Your task to perform on an android device: find snoozed emails in the gmail app Image 0: 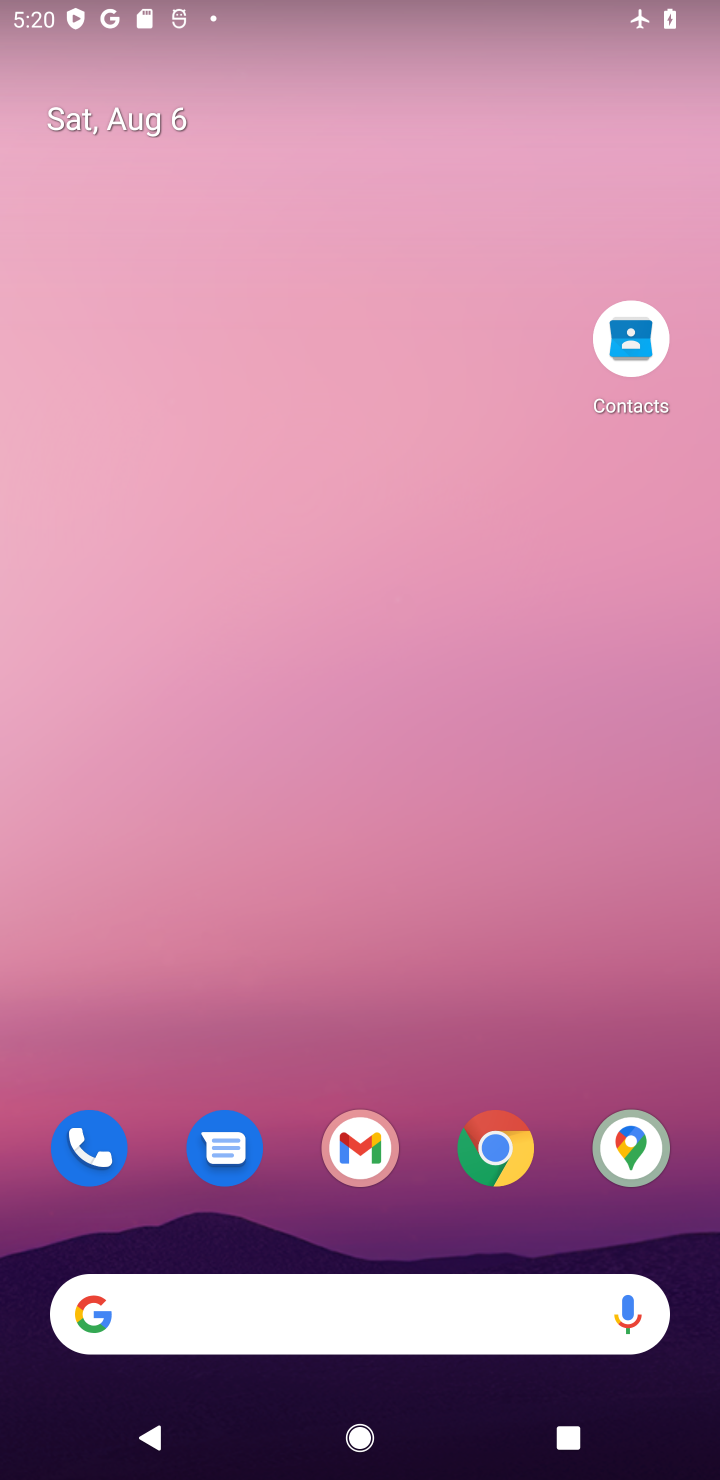
Step 0: drag from (340, 1172) to (163, 31)
Your task to perform on an android device: find snoozed emails in the gmail app Image 1: 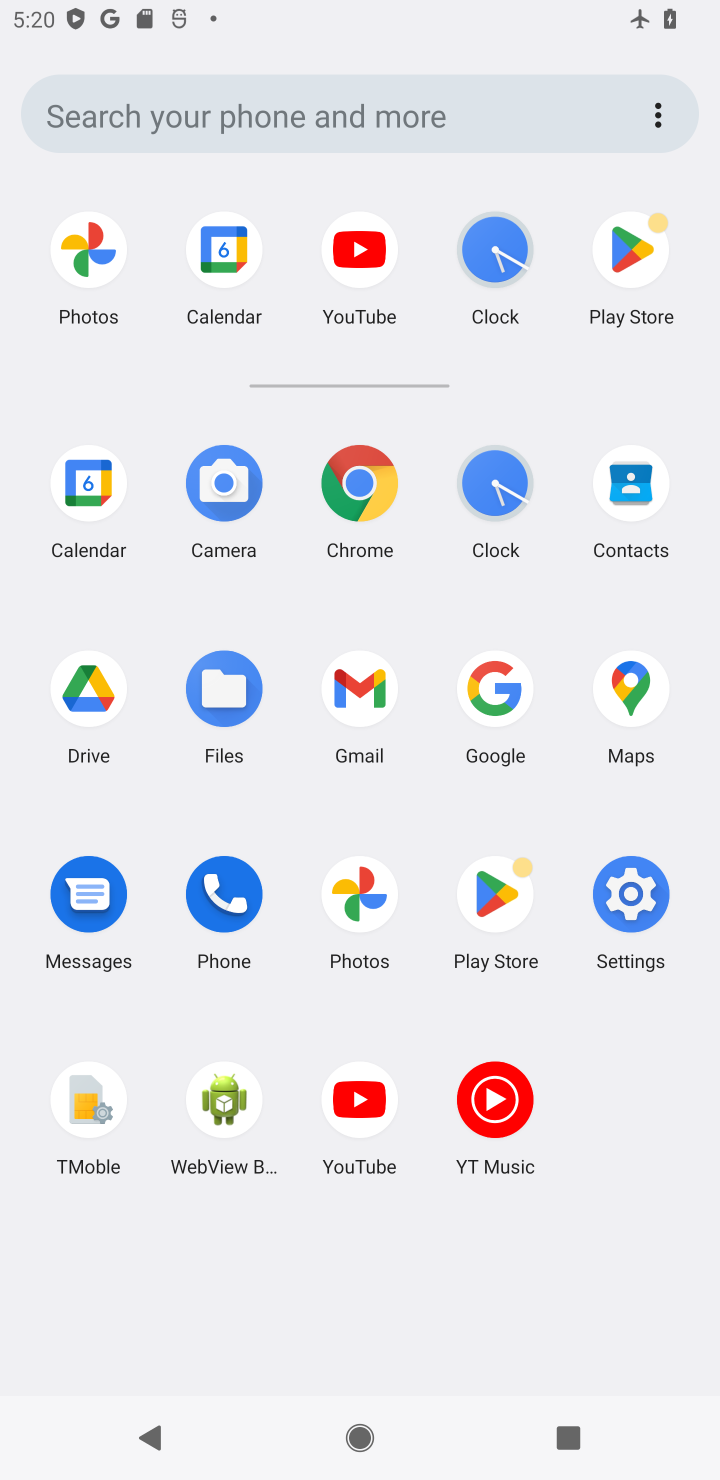
Step 1: click (379, 696)
Your task to perform on an android device: find snoozed emails in the gmail app Image 2: 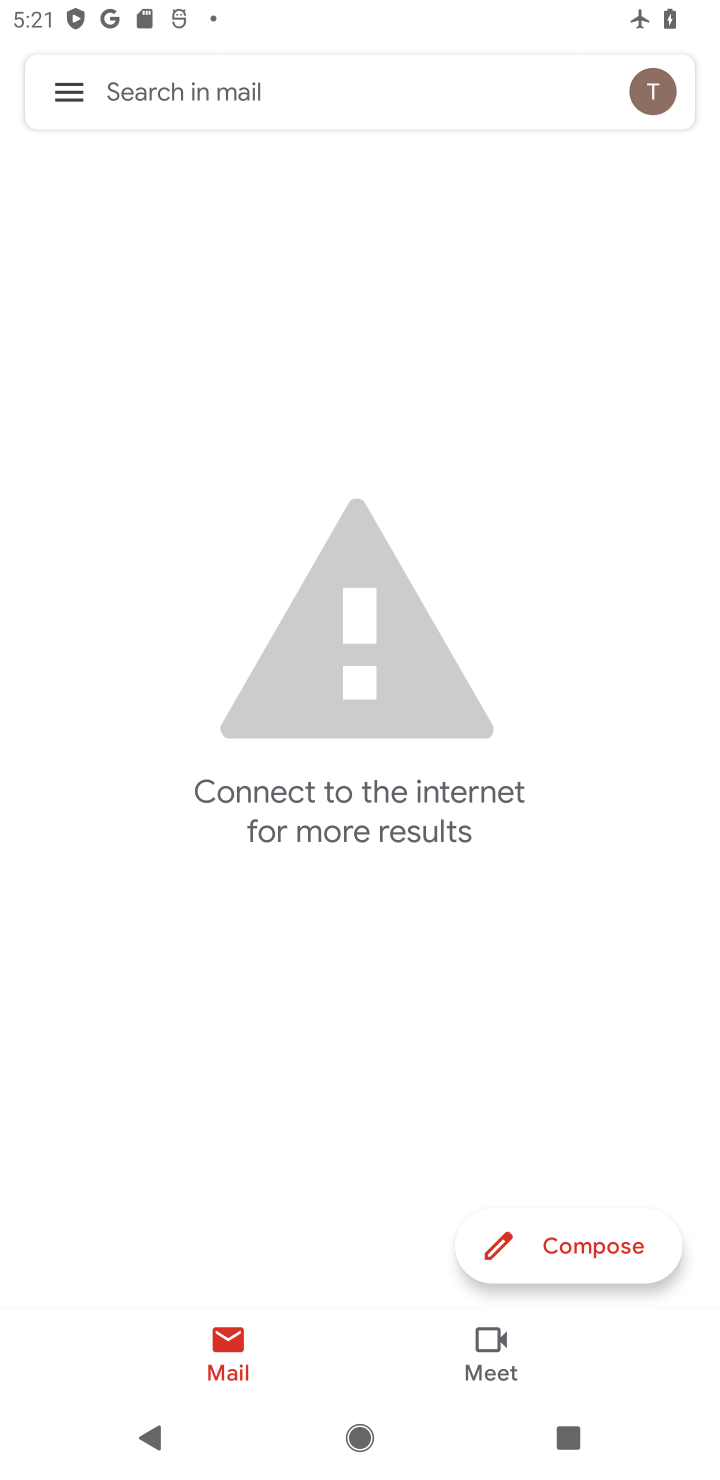
Step 2: click (44, 89)
Your task to perform on an android device: find snoozed emails in the gmail app Image 3: 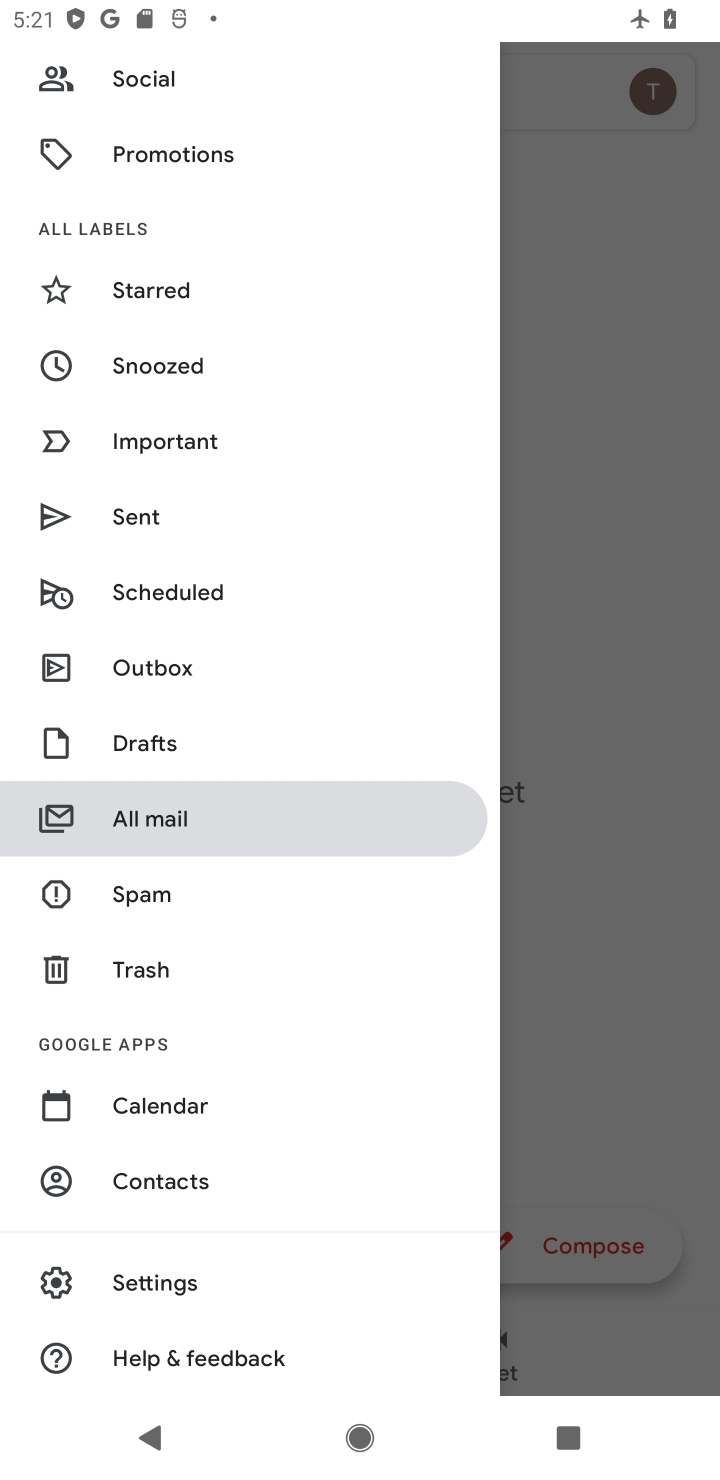
Step 3: click (153, 361)
Your task to perform on an android device: find snoozed emails in the gmail app Image 4: 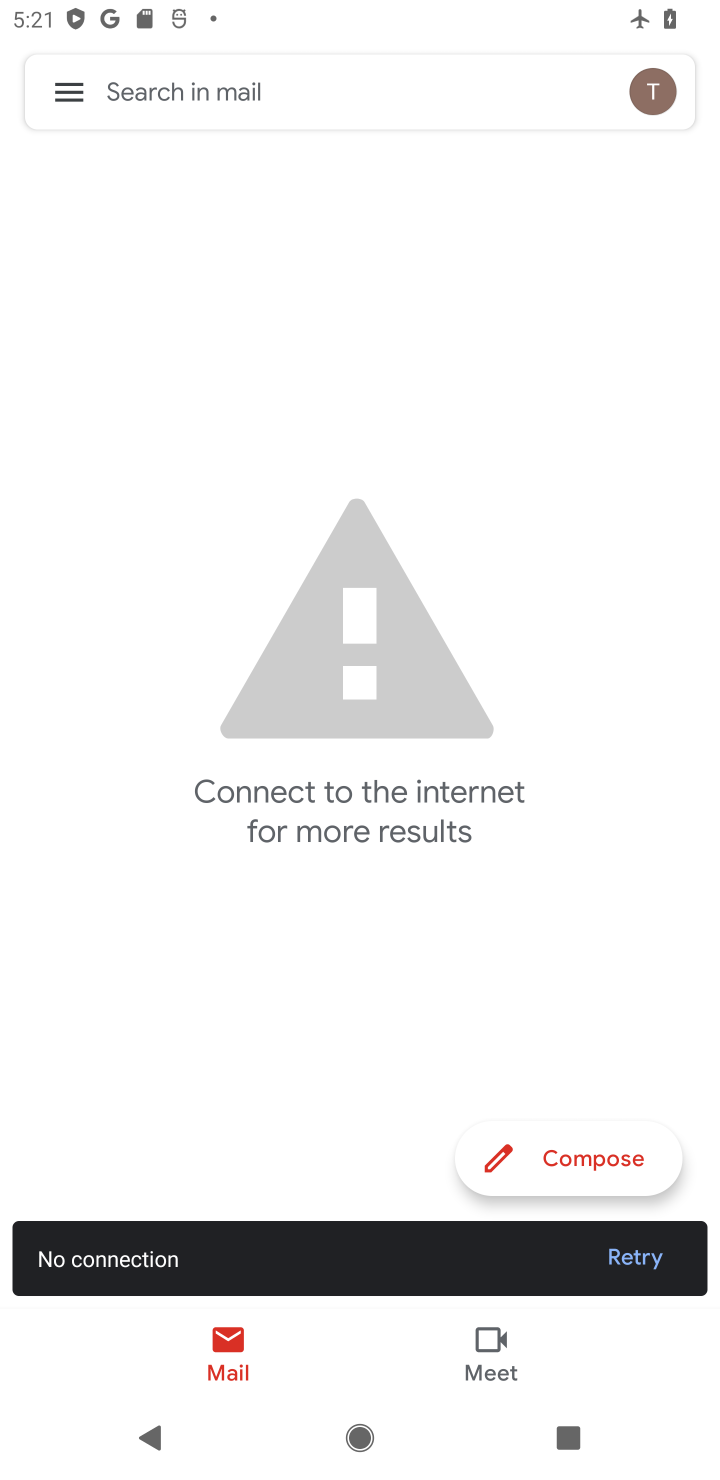
Step 4: task complete